Your task to perform on an android device: turn on location history Image 0: 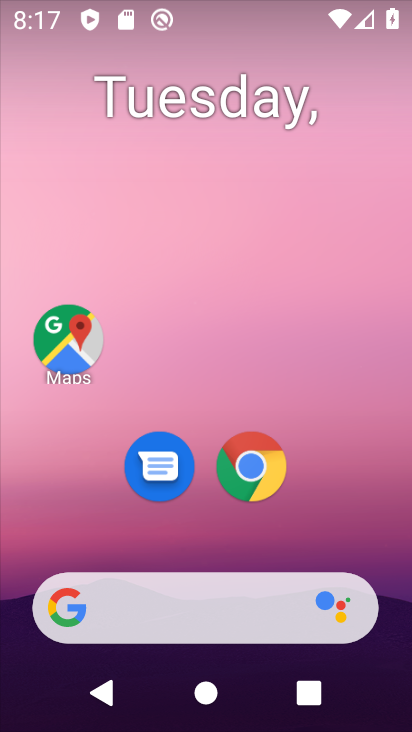
Step 0: drag from (211, 546) to (239, 154)
Your task to perform on an android device: turn on location history Image 1: 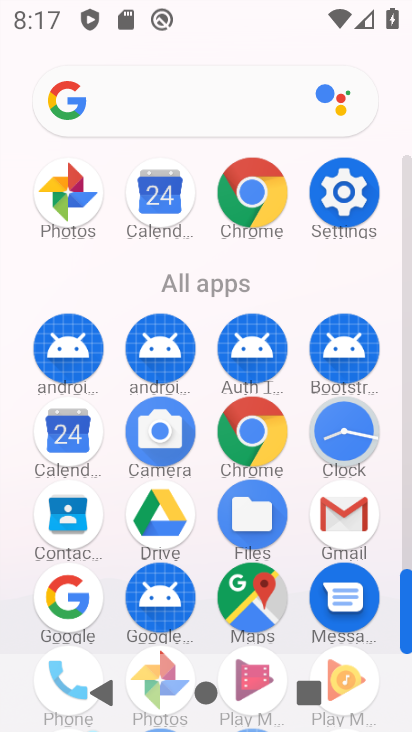
Step 1: click (342, 200)
Your task to perform on an android device: turn on location history Image 2: 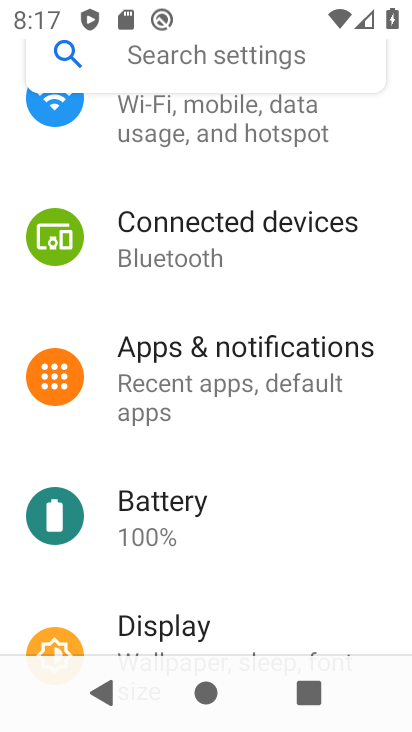
Step 2: drag from (277, 548) to (270, 418)
Your task to perform on an android device: turn on location history Image 3: 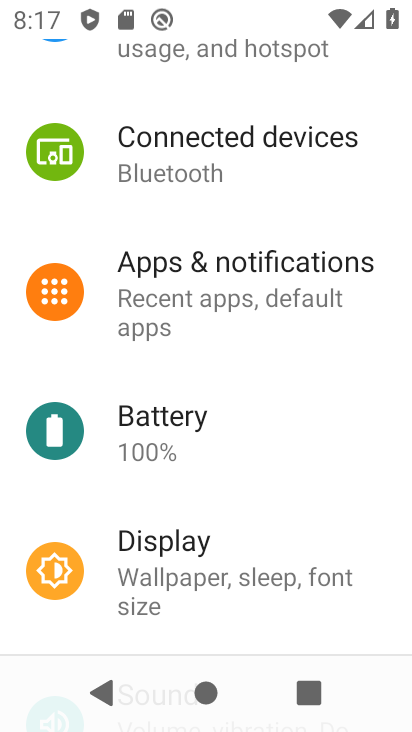
Step 3: drag from (220, 611) to (241, 419)
Your task to perform on an android device: turn on location history Image 4: 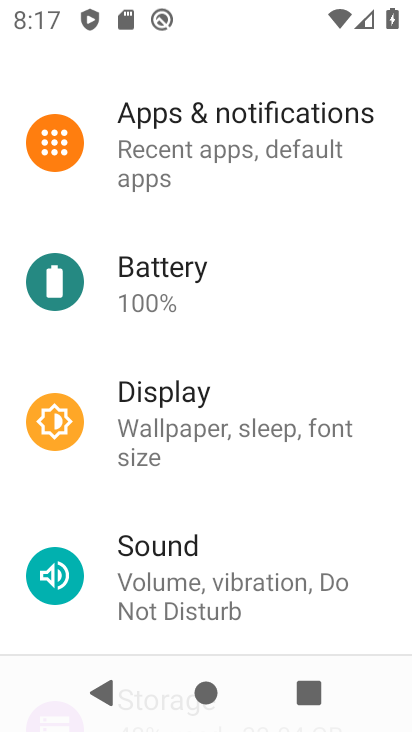
Step 4: drag from (193, 627) to (222, 446)
Your task to perform on an android device: turn on location history Image 5: 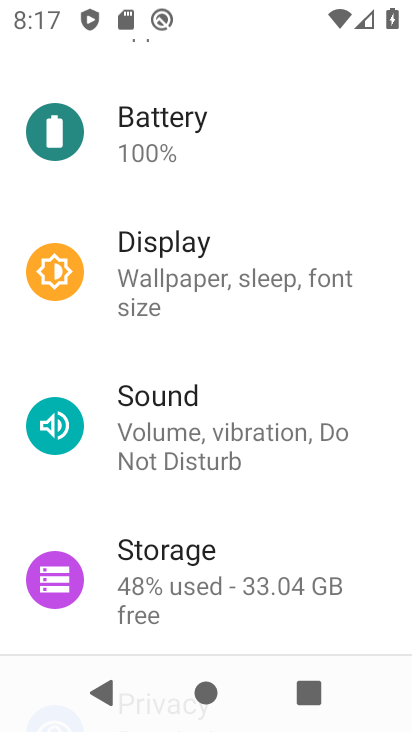
Step 5: drag from (190, 591) to (218, 362)
Your task to perform on an android device: turn on location history Image 6: 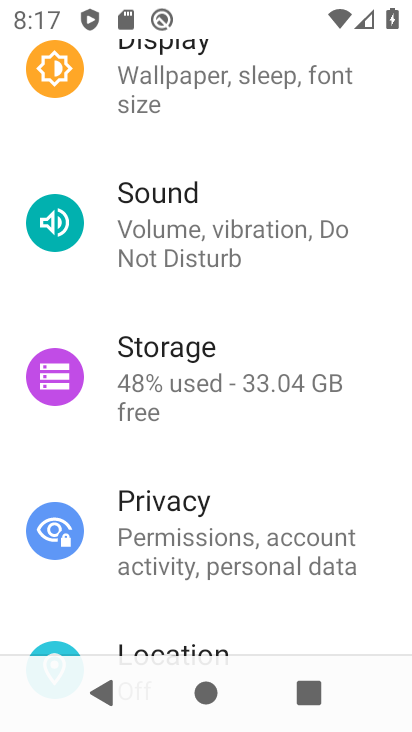
Step 6: drag from (197, 522) to (269, 134)
Your task to perform on an android device: turn on location history Image 7: 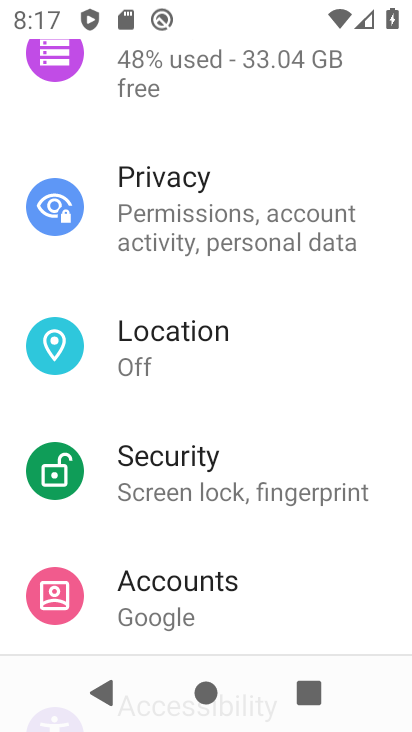
Step 7: click (203, 343)
Your task to perform on an android device: turn on location history Image 8: 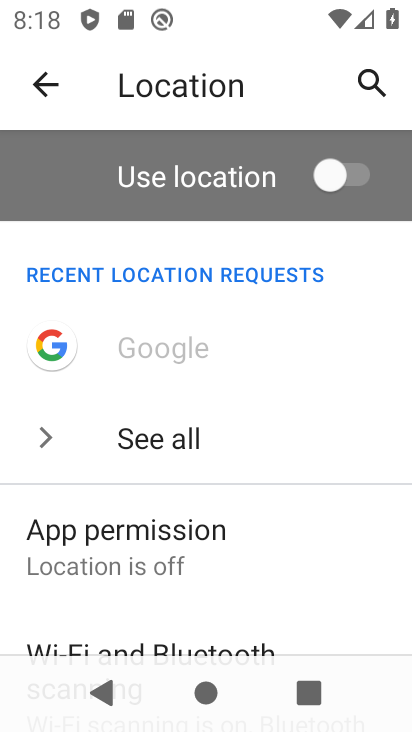
Step 8: drag from (190, 522) to (229, 280)
Your task to perform on an android device: turn on location history Image 9: 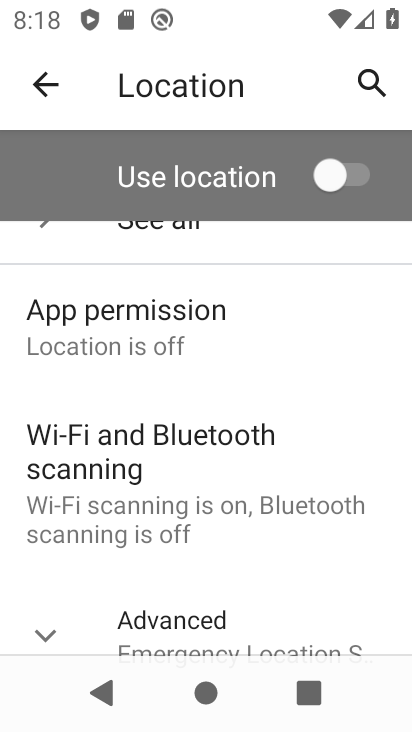
Step 9: drag from (186, 619) to (226, 391)
Your task to perform on an android device: turn on location history Image 10: 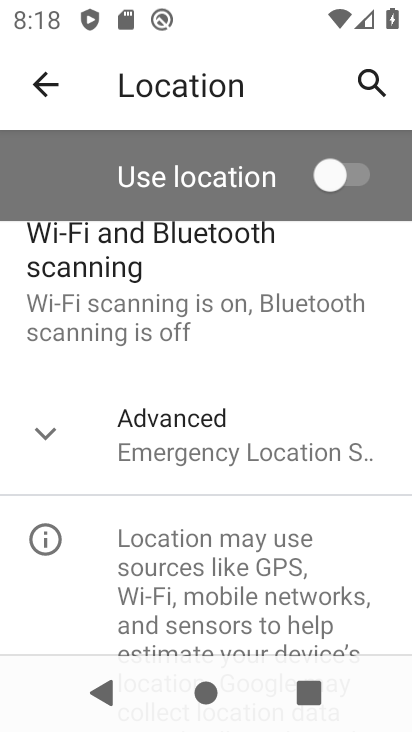
Step 10: click (51, 439)
Your task to perform on an android device: turn on location history Image 11: 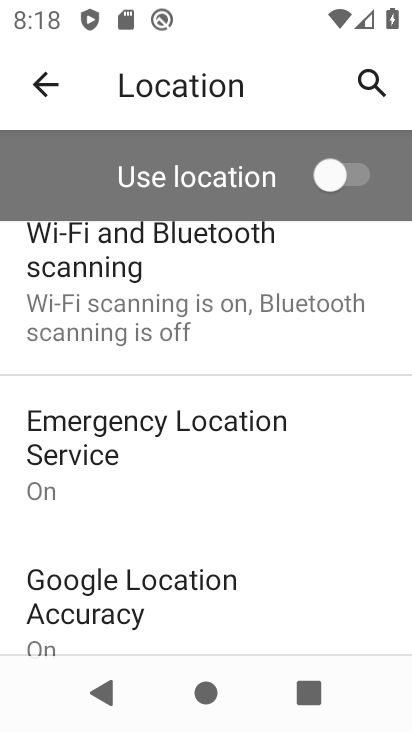
Step 11: drag from (182, 618) to (222, 379)
Your task to perform on an android device: turn on location history Image 12: 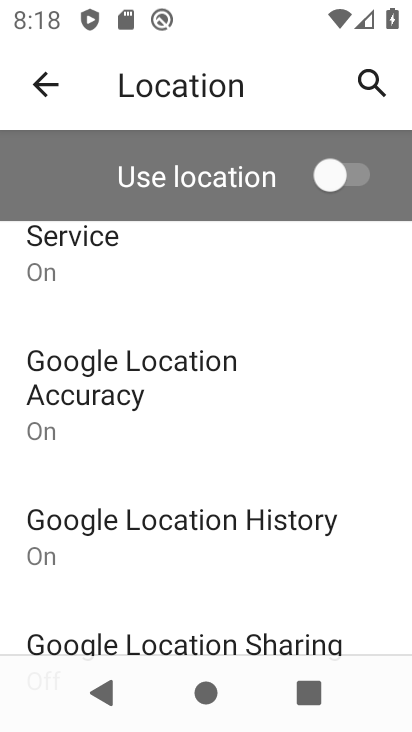
Step 12: click (185, 549)
Your task to perform on an android device: turn on location history Image 13: 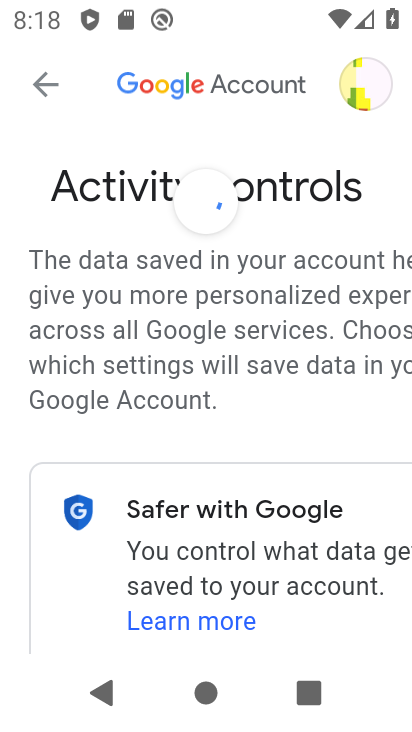
Step 13: drag from (239, 530) to (250, 236)
Your task to perform on an android device: turn on location history Image 14: 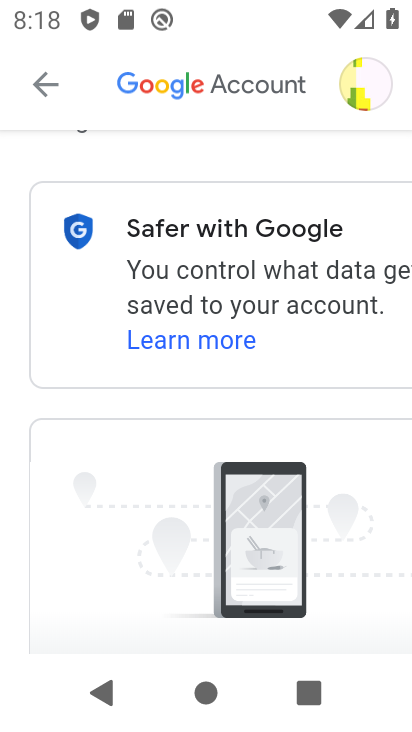
Step 14: drag from (197, 525) to (190, 43)
Your task to perform on an android device: turn on location history Image 15: 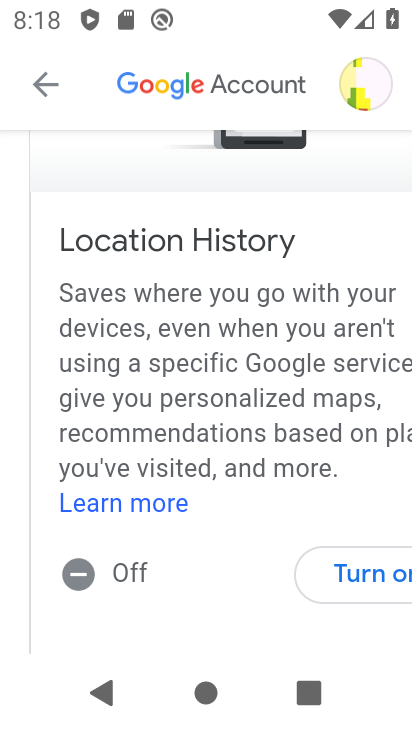
Step 15: click (341, 568)
Your task to perform on an android device: turn on location history Image 16: 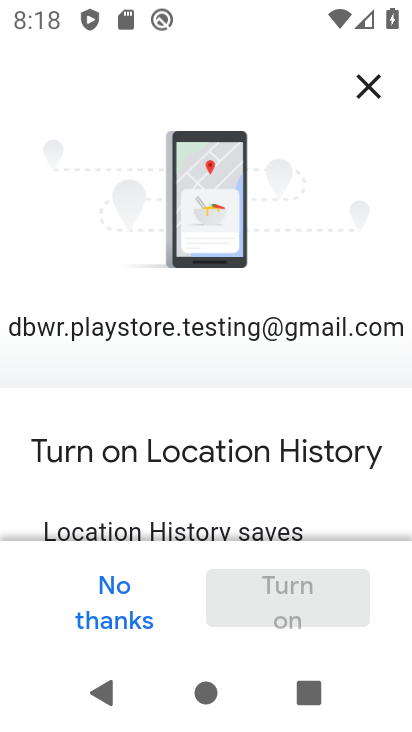
Step 16: drag from (211, 499) to (287, 114)
Your task to perform on an android device: turn on location history Image 17: 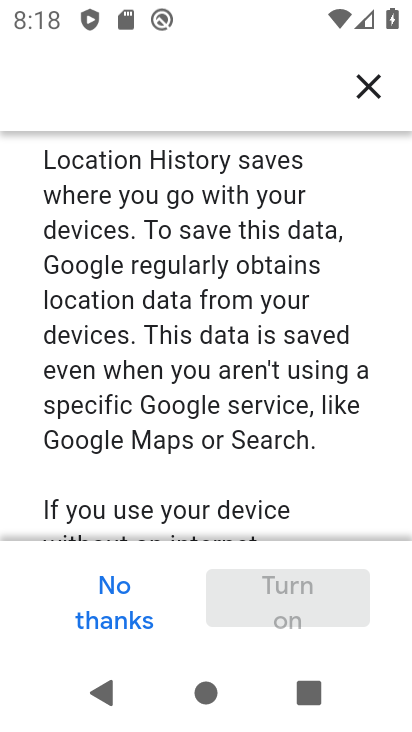
Step 17: click (250, 99)
Your task to perform on an android device: turn on location history Image 18: 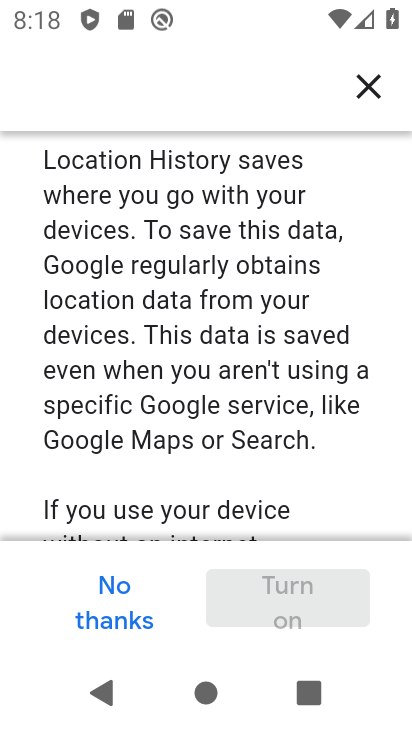
Step 18: drag from (176, 481) to (169, 107)
Your task to perform on an android device: turn on location history Image 19: 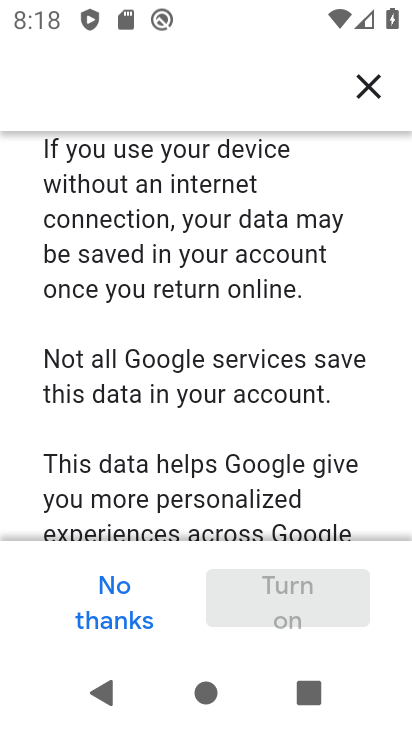
Step 19: drag from (171, 519) to (200, 112)
Your task to perform on an android device: turn on location history Image 20: 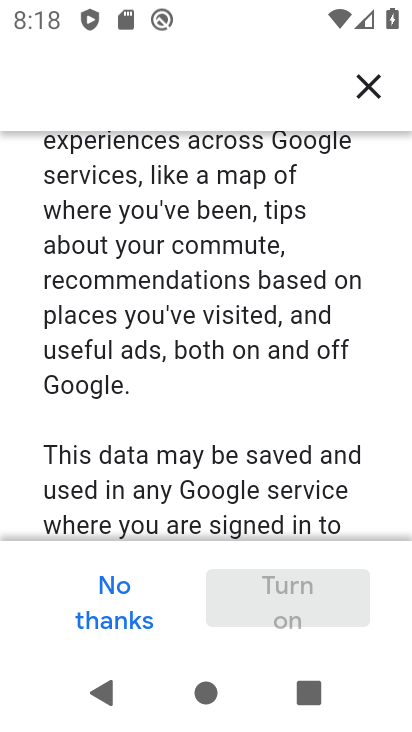
Step 20: drag from (215, 495) to (298, 6)
Your task to perform on an android device: turn on location history Image 21: 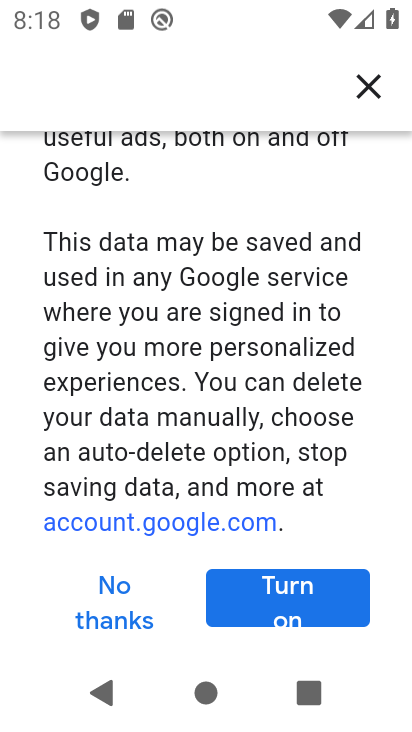
Step 21: drag from (283, 514) to (291, 279)
Your task to perform on an android device: turn on location history Image 22: 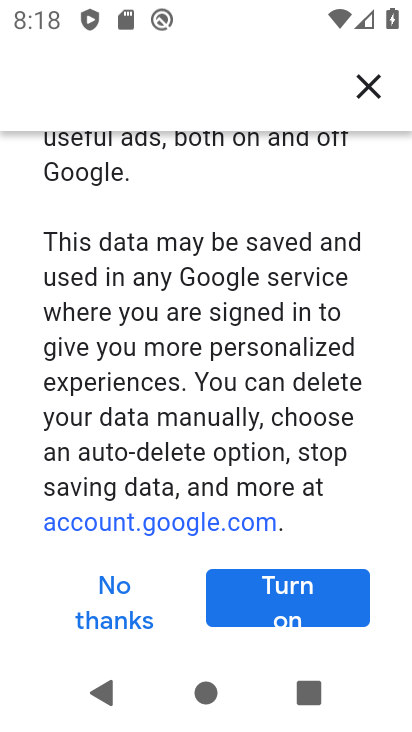
Step 22: click (294, 604)
Your task to perform on an android device: turn on location history Image 23: 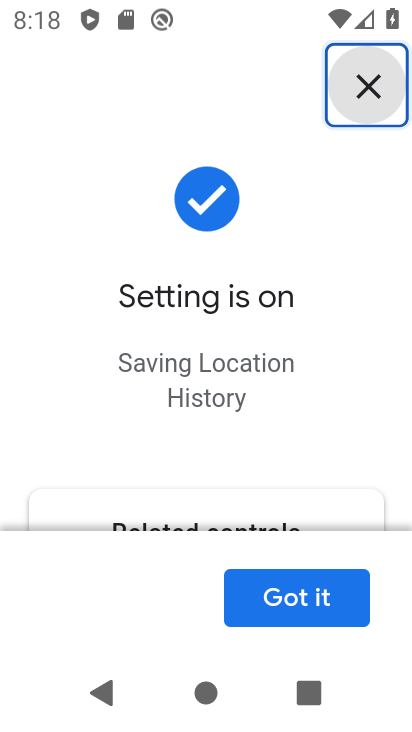
Step 23: click (281, 597)
Your task to perform on an android device: turn on location history Image 24: 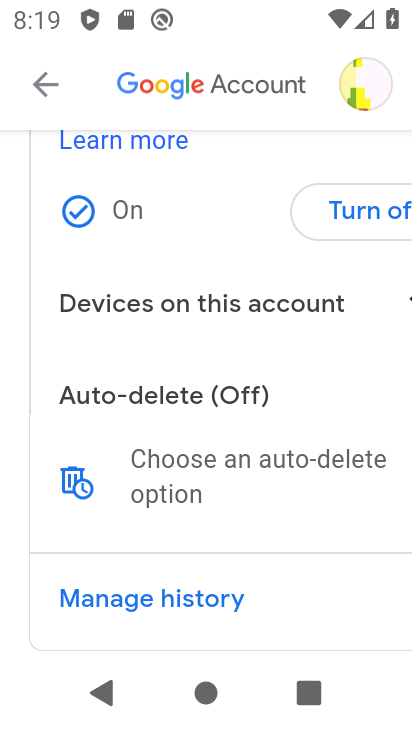
Step 24: task complete